Your task to perform on an android device: change text size in settings app Image 0: 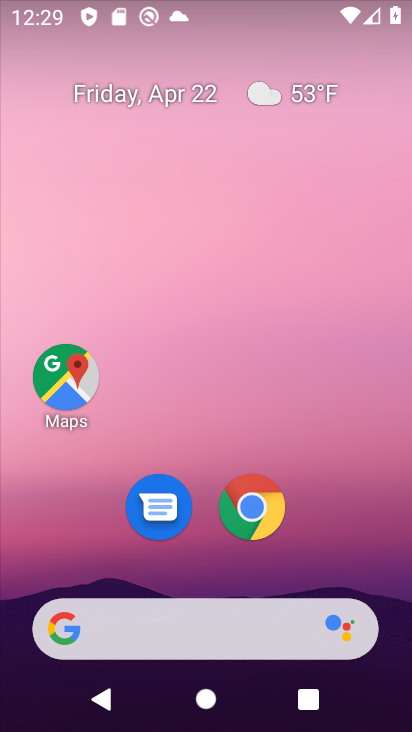
Step 0: drag from (350, 477) to (331, 41)
Your task to perform on an android device: change text size in settings app Image 1: 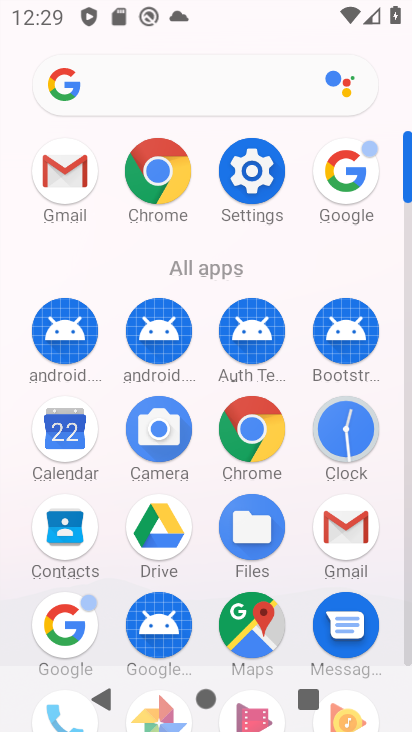
Step 1: click (255, 177)
Your task to perform on an android device: change text size in settings app Image 2: 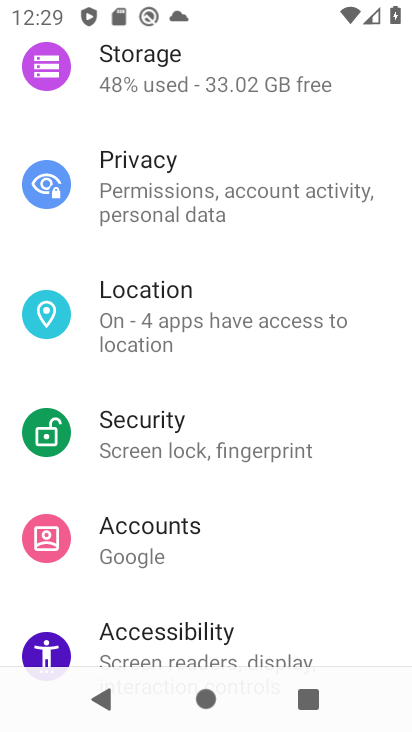
Step 2: drag from (229, 135) to (243, 519)
Your task to perform on an android device: change text size in settings app Image 3: 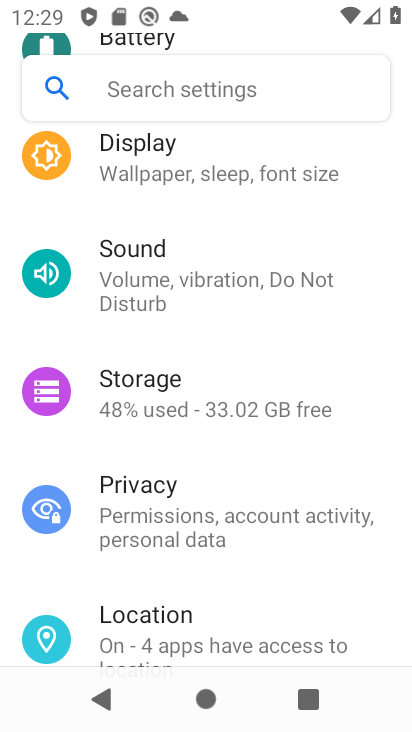
Step 3: drag from (244, 203) to (254, 349)
Your task to perform on an android device: change text size in settings app Image 4: 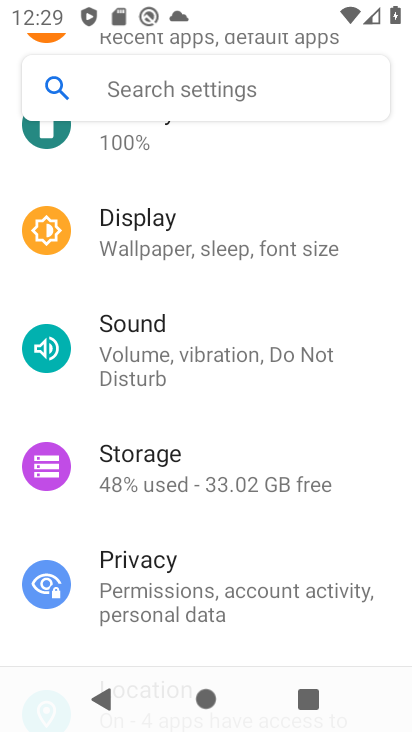
Step 4: click (173, 235)
Your task to perform on an android device: change text size in settings app Image 5: 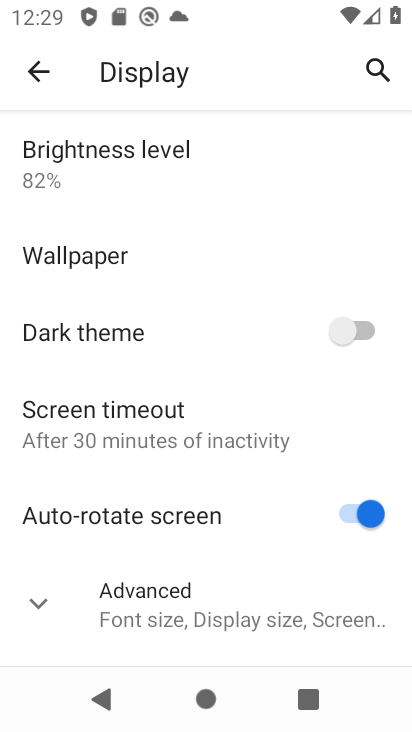
Step 5: click (194, 591)
Your task to perform on an android device: change text size in settings app Image 6: 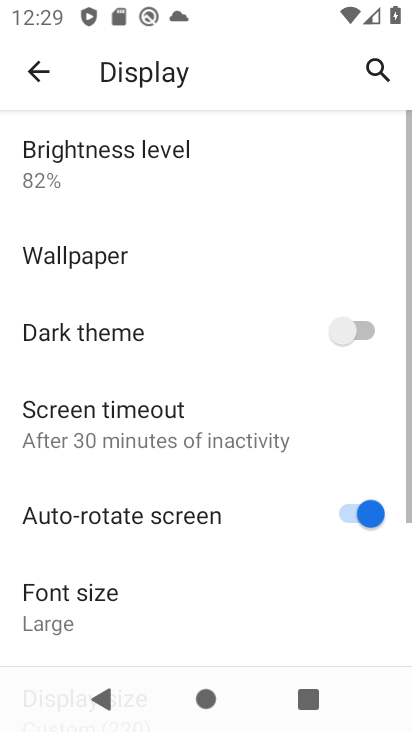
Step 6: click (118, 608)
Your task to perform on an android device: change text size in settings app Image 7: 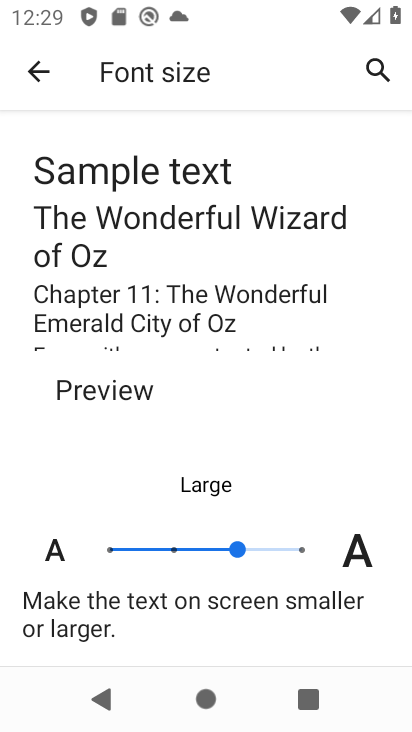
Step 7: click (110, 550)
Your task to perform on an android device: change text size in settings app Image 8: 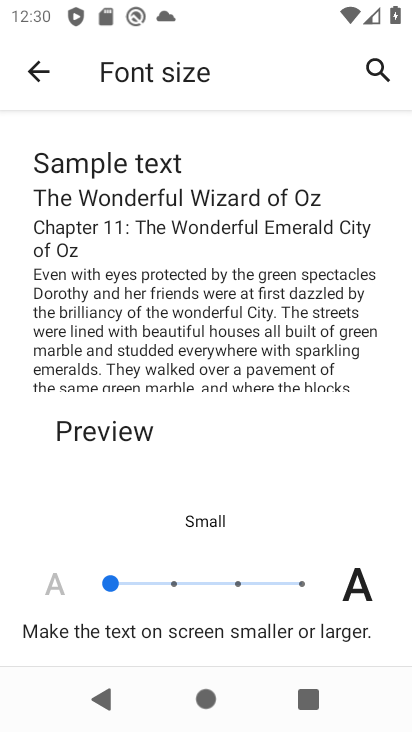
Step 8: task complete